Your task to perform on an android device: change notifications settings Image 0: 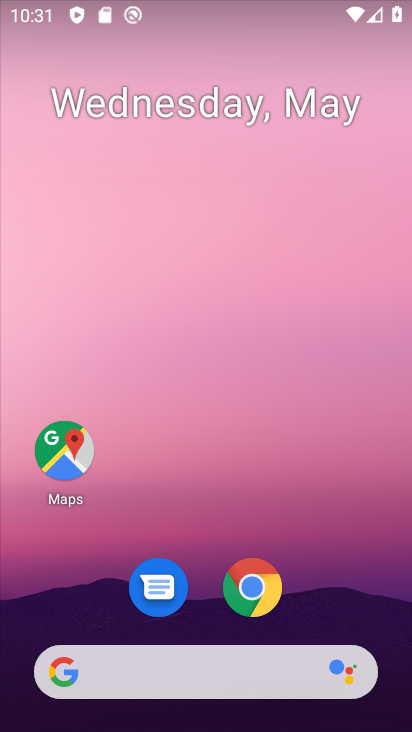
Step 0: drag from (205, 564) to (279, 5)
Your task to perform on an android device: change notifications settings Image 1: 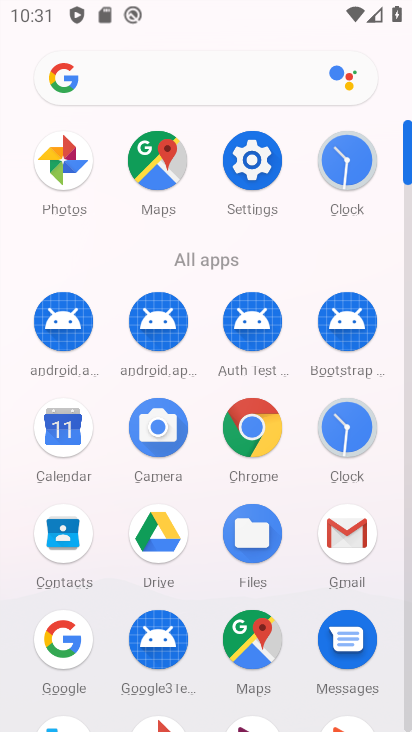
Step 1: click (254, 160)
Your task to perform on an android device: change notifications settings Image 2: 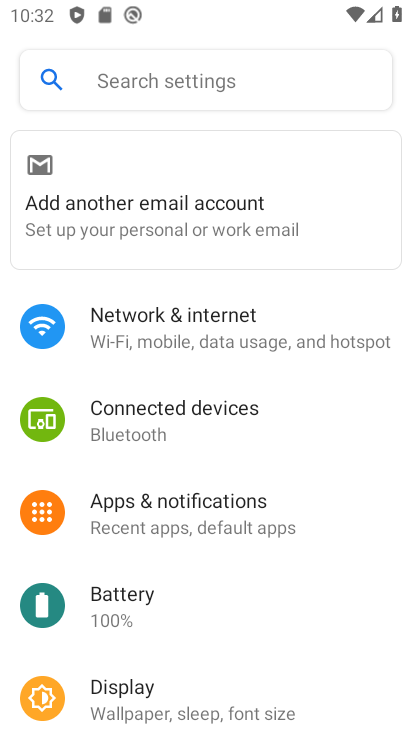
Step 2: click (207, 506)
Your task to perform on an android device: change notifications settings Image 3: 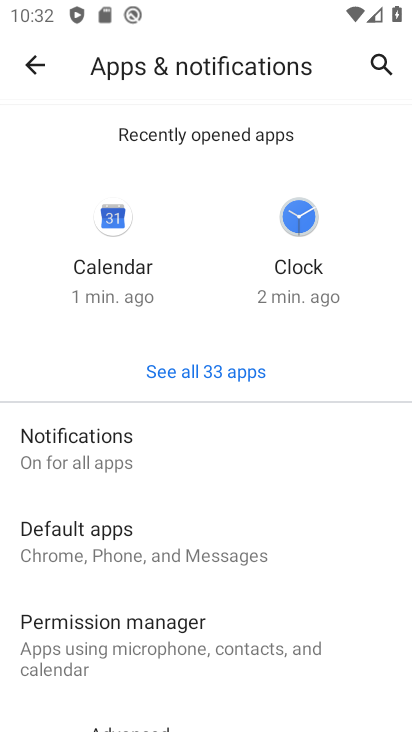
Step 3: click (135, 452)
Your task to perform on an android device: change notifications settings Image 4: 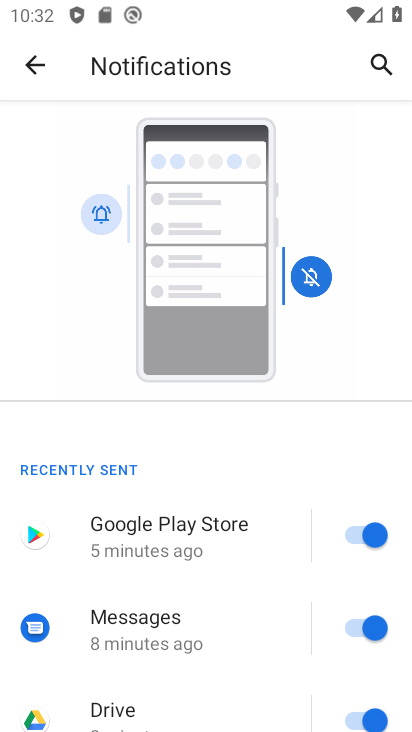
Step 4: drag from (226, 634) to (300, 260)
Your task to perform on an android device: change notifications settings Image 5: 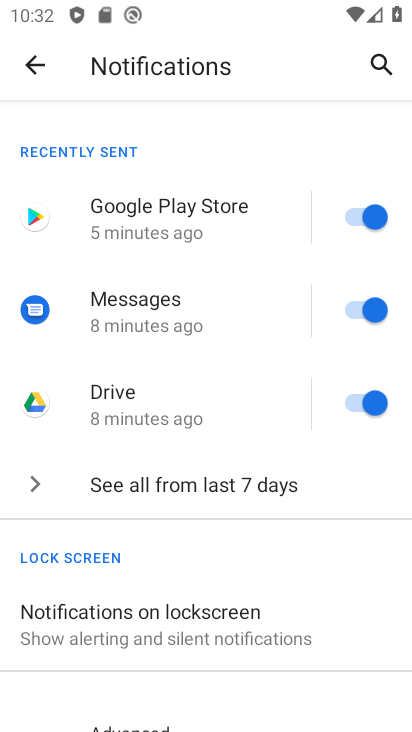
Step 5: drag from (212, 630) to (289, 160)
Your task to perform on an android device: change notifications settings Image 6: 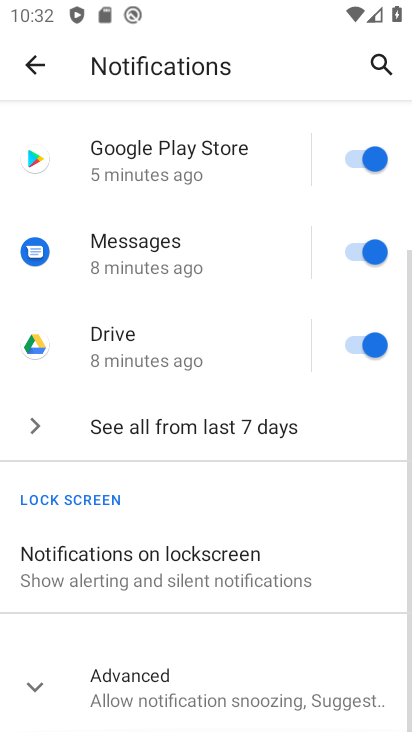
Step 6: click (190, 686)
Your task to perform on an android device: change notifications settings Image 7: 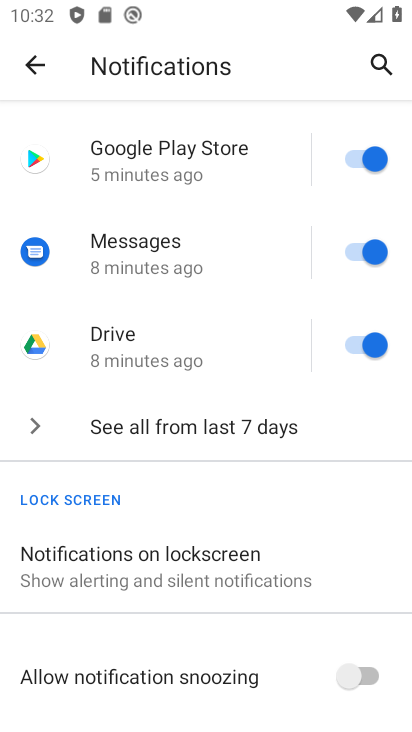
Step 7: click (345, 675)
Your task to perform on an android device: change notifications settings Image 8: 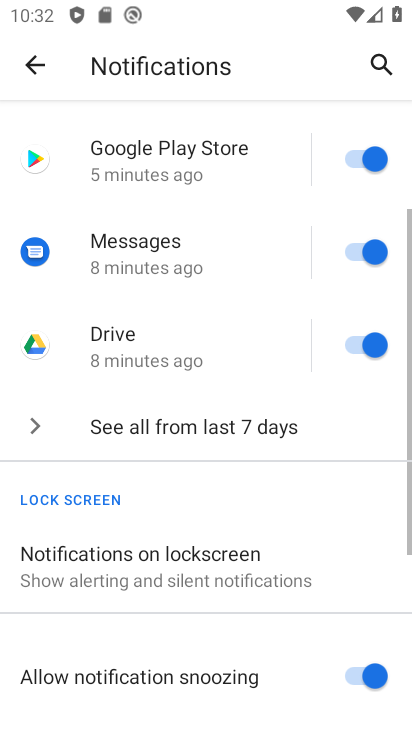
Step 8: task complete